Your task to perform on an android device: open chrome and create a bookmark for the current page Image 0: 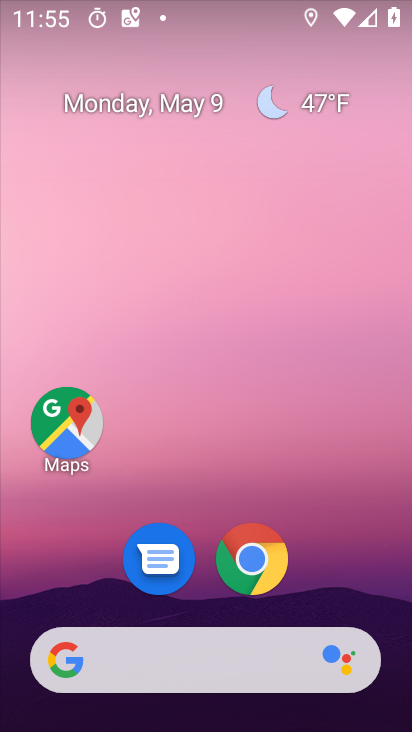
Step 0: click (272, 560)
Your task to perform on an android device: open chrome and create a bookmark for the current page Image 1: 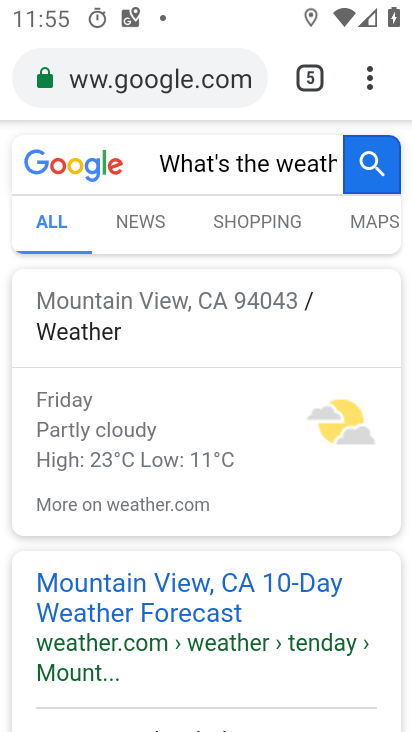
Step 1: task complete